Your task to perform on an android device: Open calendar and show me the first week of next month Image 0: 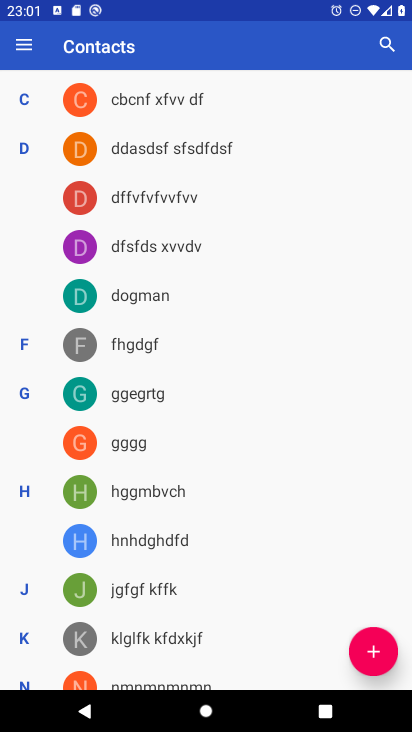
Step 0: press home button
Your task to perform on an android device: Open calendar and show me the first week of next month Image 1: 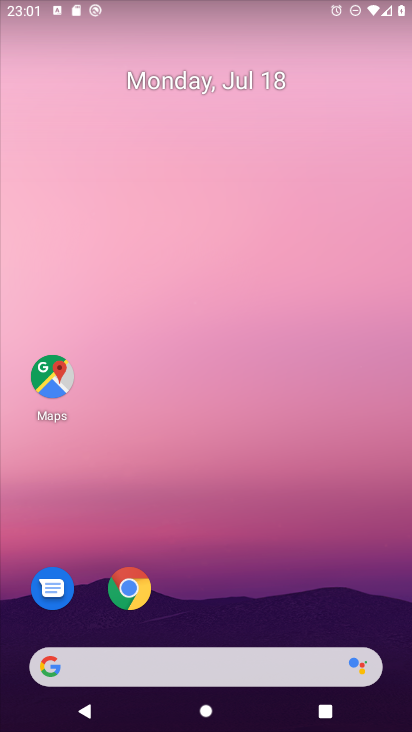
Step 1: drag from (380, 608) to (267, 13)
Your task to perform on an android device: Open calendar and show me the first week of next month Image 2: 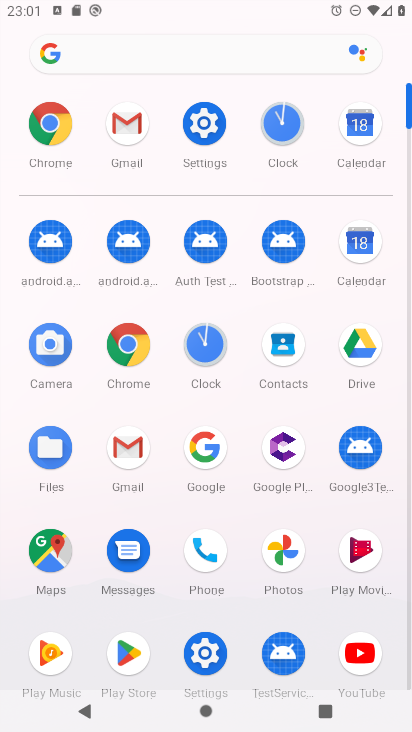
Step 2: click (361, 268)
Your task to perform on an android device: Open calendar and show me the first week of next month Image 3: 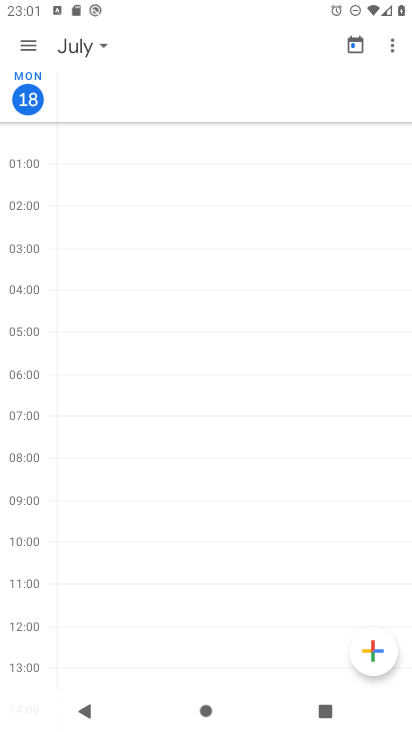
Step 3: click (27, 46)
Your task to perform on an android device: Open calendar and show me the first week of next month Image 4: 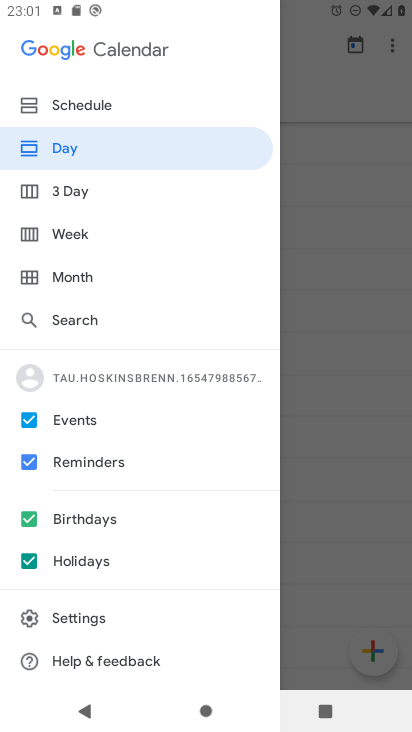
Step 4: click (77, 231)
Your task to perform on an android device: Open calendar and show me the first week of next month Image 5: 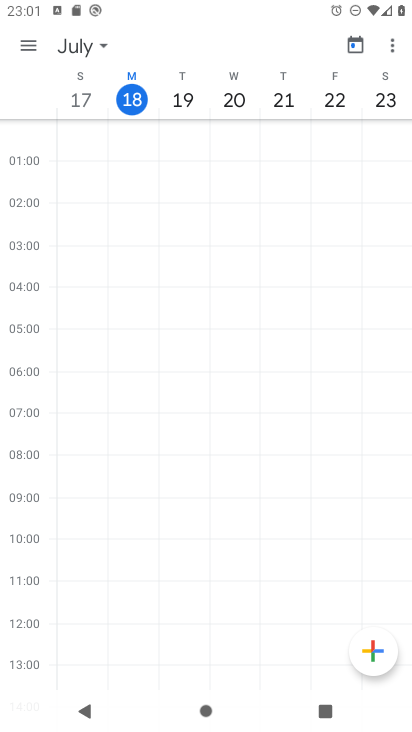
Step 5: click (102, 42)
Your task to perform on an android device: Open calendar and show me the first week of next month Image 6: 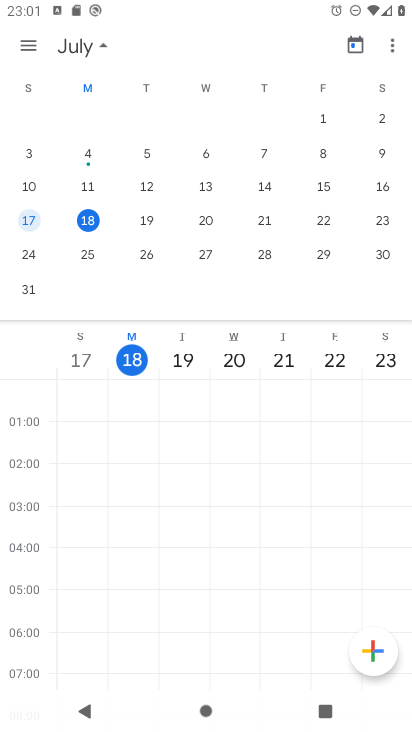
Step 6: drag from (387, 245) to (5, 164)
Your task to perform on an android device: Open calendar and show me the first week of next month Image 7: 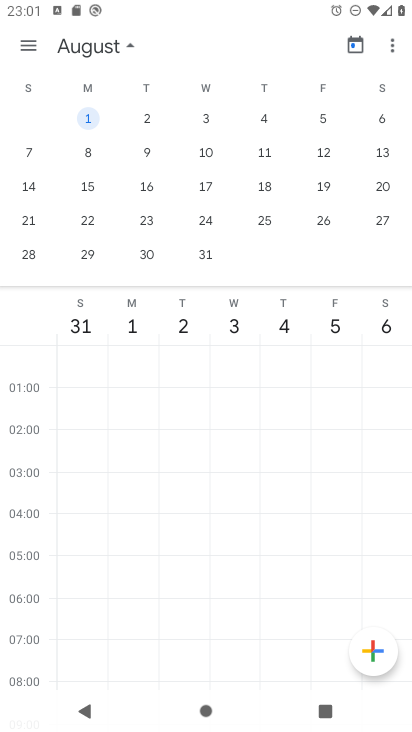
Step 7: click (29, 154)
Your task to perform on an android device: Open calendar and show me the first week of next month Image 8: 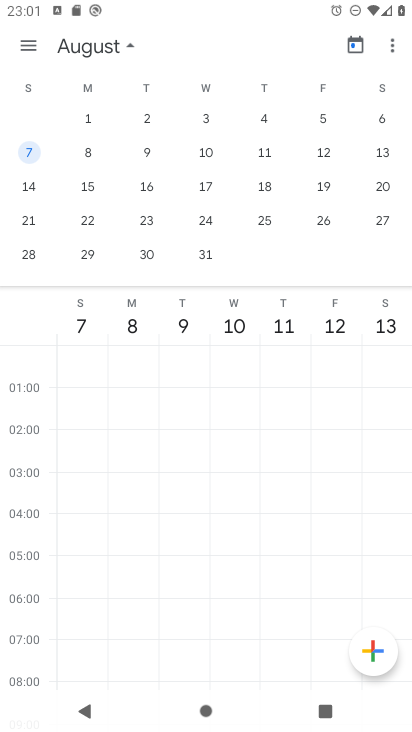
Step 8: task complete